Your task to perform on an android device: check google app version Image 0: 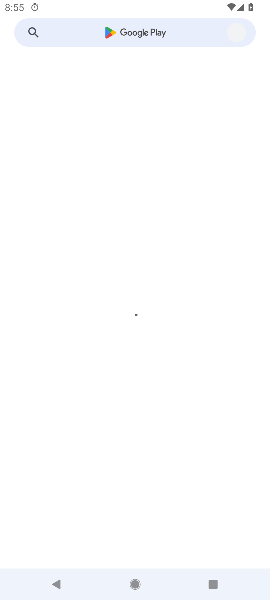
Step 0: press home button
Your task to perform on an android device: check google app version Image 1: 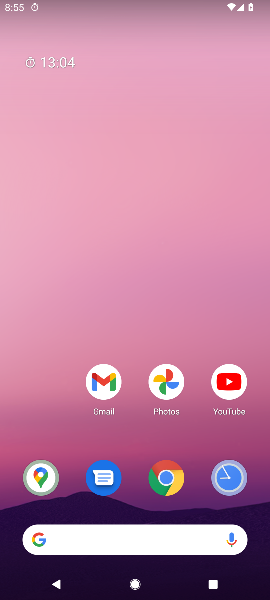
Step 1: drag from (153, 479) to (158, 94)
Your task to perform on an android device: check google app version Image 2: 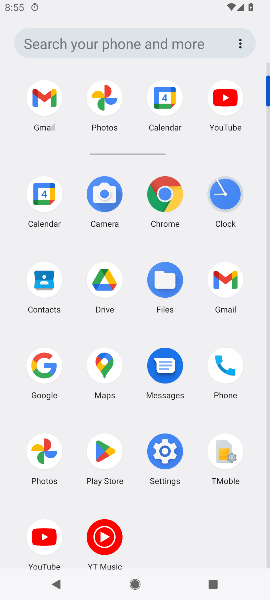
Step 2: press home button
Your task to perform on an android device: check google app version Image 3: 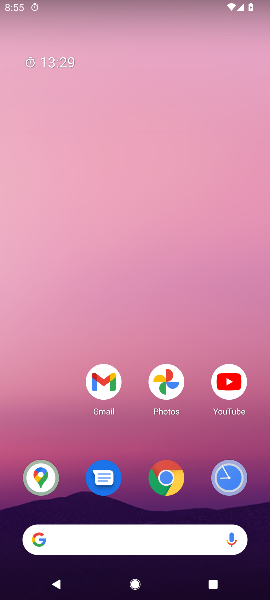
Step 3: drag from (162, 478) to (248, 182)
Your task to perform on an android device: check google app version Image 4: 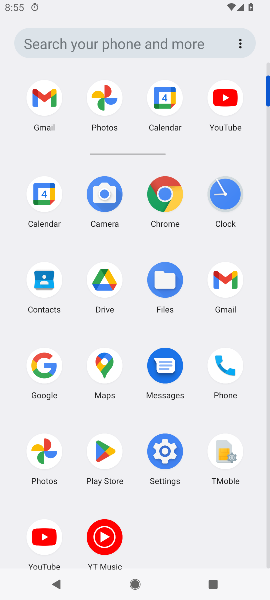
Step 4: click (43, 361)
Your task to perform on an android device: check google app version Image 5: 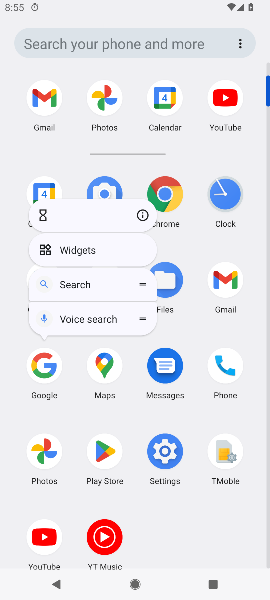
Step 5: click (144, 208)
Your task to perform on an android device: check google app version Image 6: 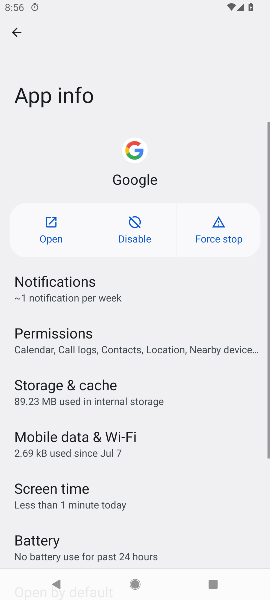
Step 6: task complete